Your task to perform on an android device: Show me popular videos on Youtube Image 0: 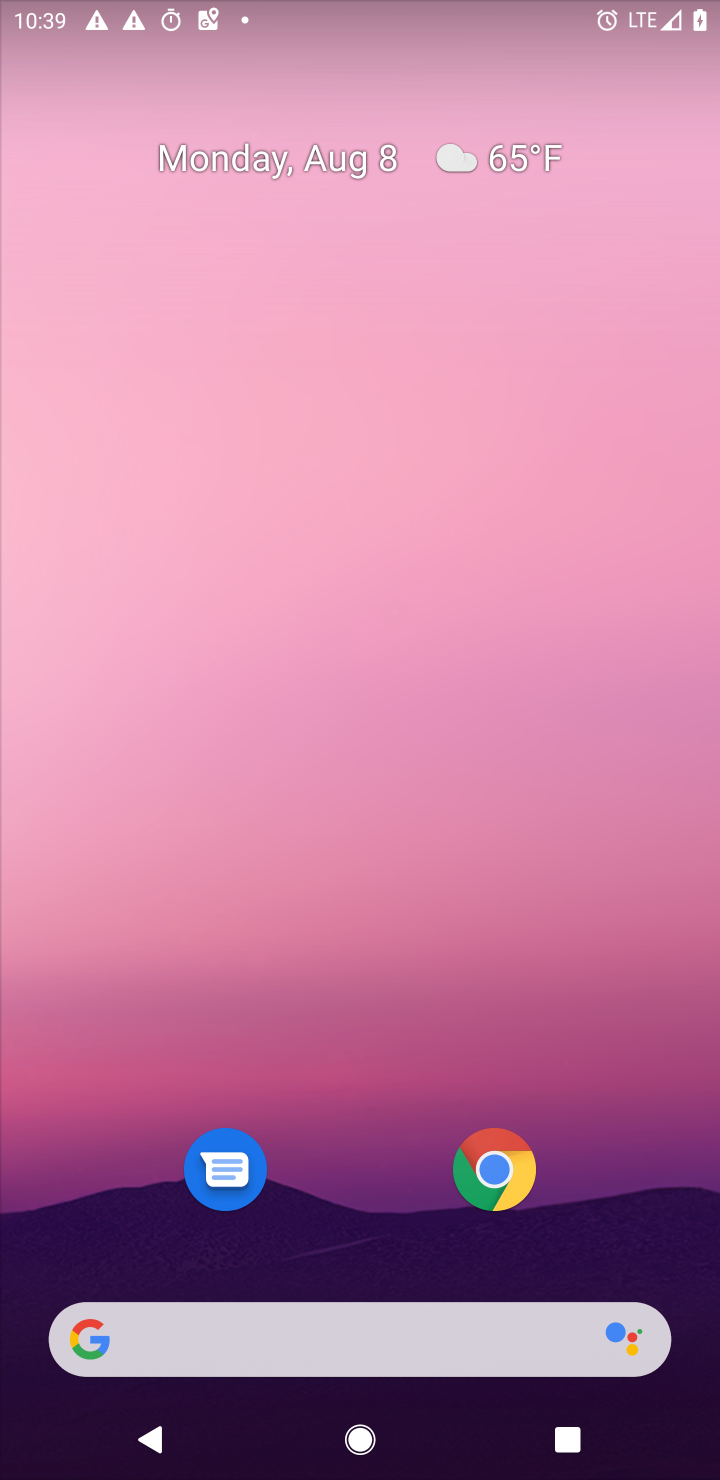
Step 0: drag from (422, 704) to (568, 47)
Your task to perform on an android device: Show me popular videos on Youtube Image 1: 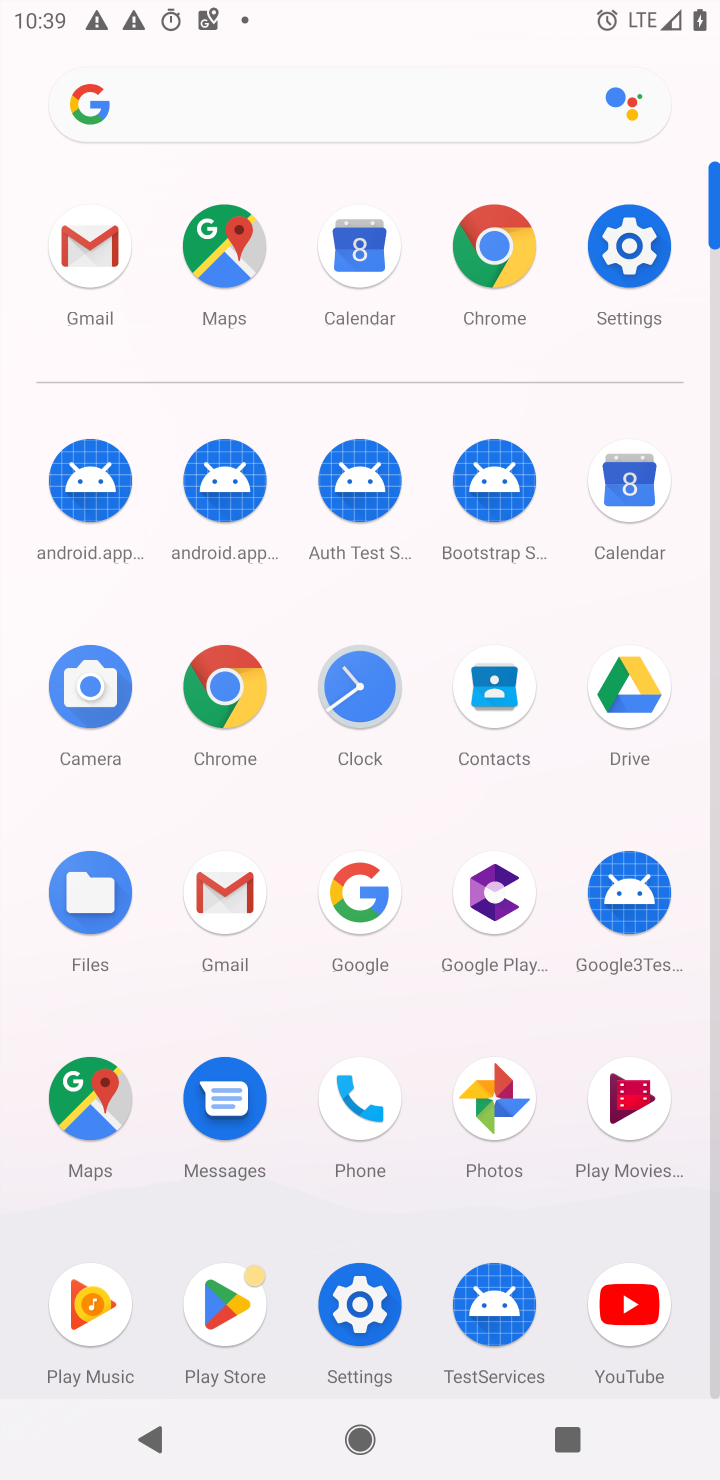
Step 1: click (629, 1317)
Your task to perform on an android device: Show me popular videos on Youtube Image 2: 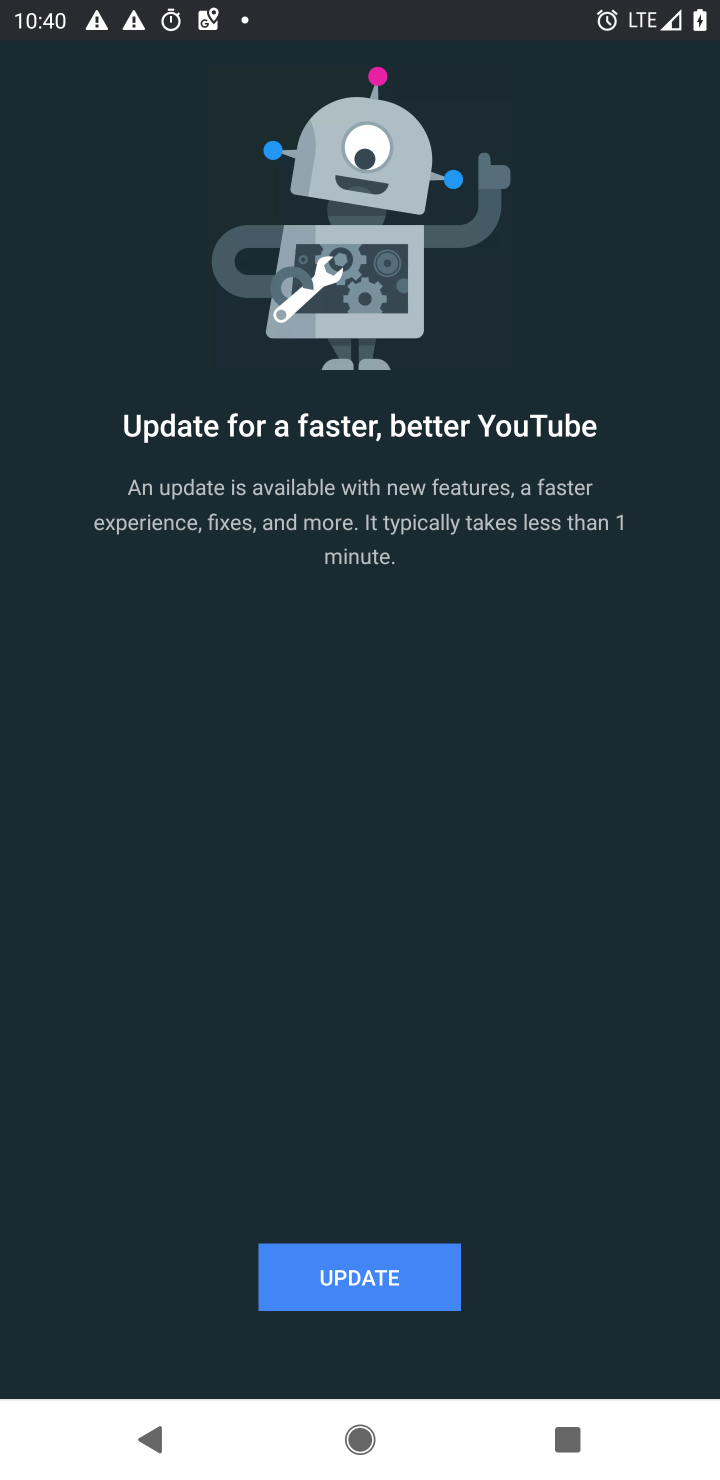
Step 2: press back button
Your task to perform on an android device: Show me popular videos on Youtube Image 3: 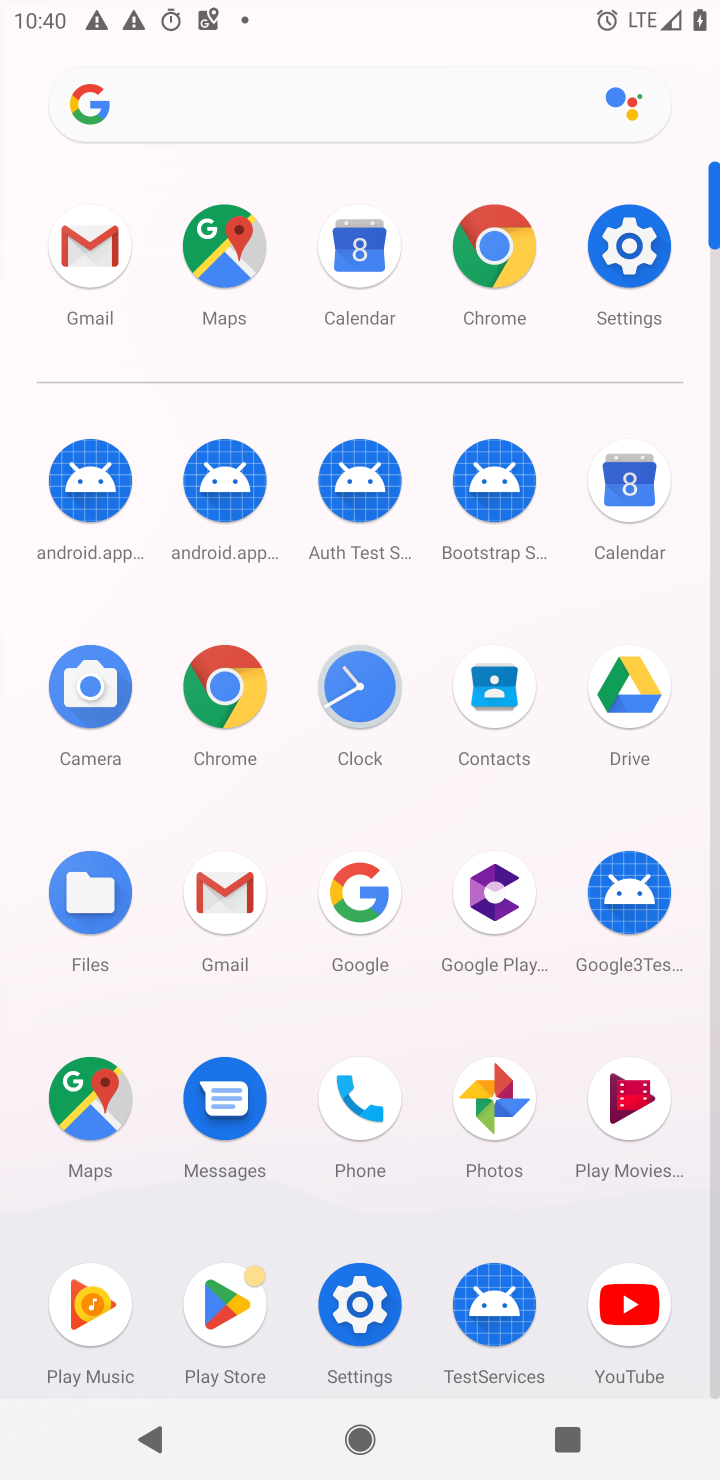
Step 3: click (648, 1327)
Your task to perform on an android device: Show me popular videos on Youtube Image 4: 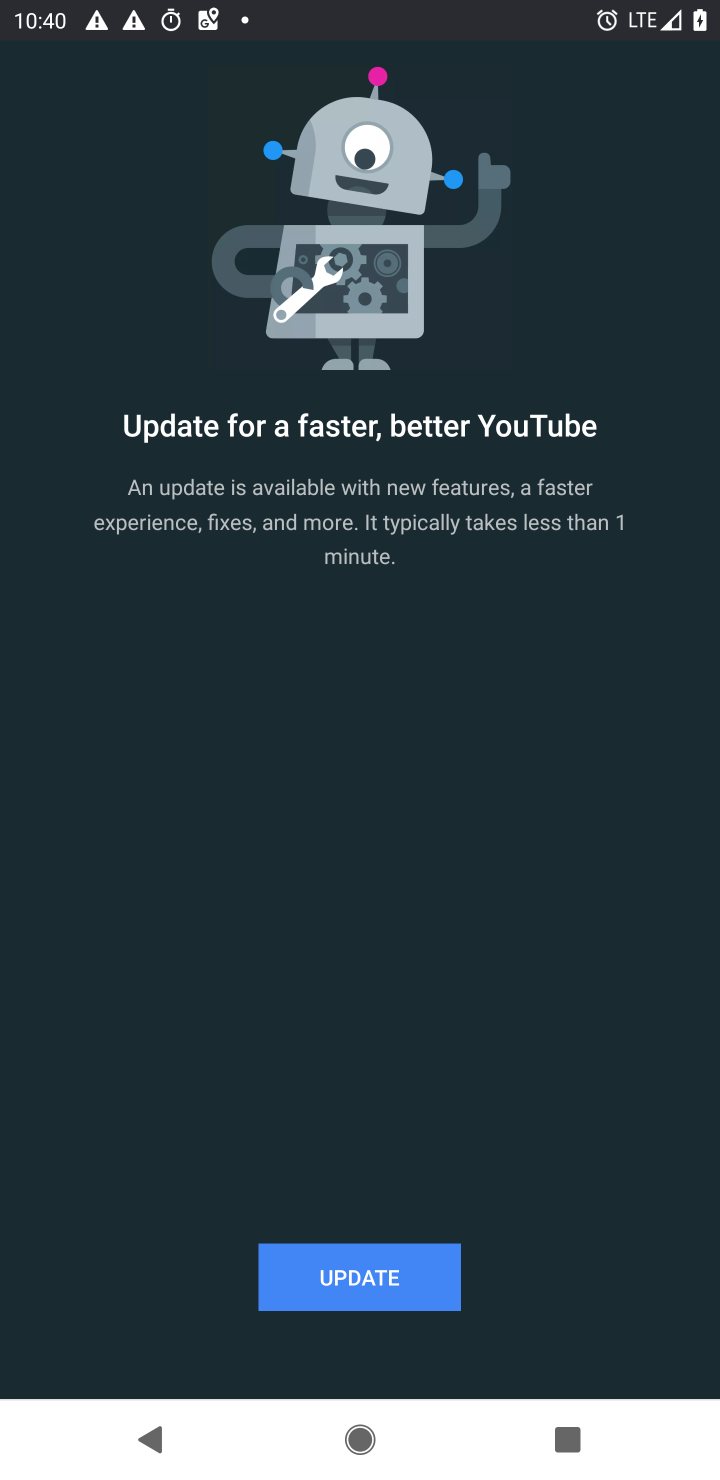
Step 4: task complete